Your task to perform on an android device: Go to Yahoo.com Image 0: 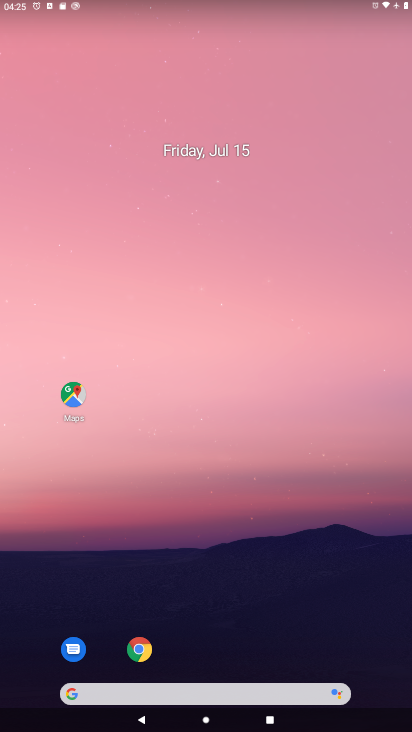
Step 0: click (138, 648)
Your task to perform on an android device: Go to Yahoo.com Image 1: 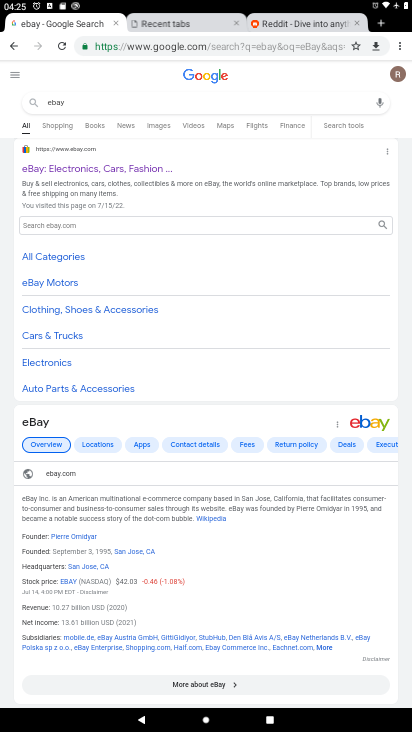
Step 1: click (286, 44)
Your task to perform on an android device: Go to Yahoo.com Image 2: 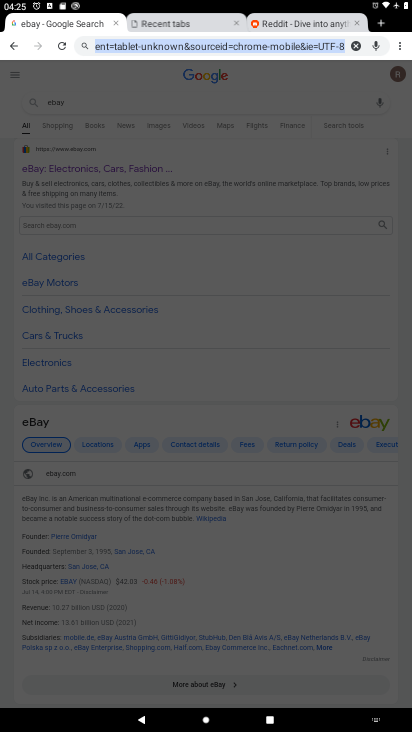
Step 2: click (353, 45)
Your task to perform on an android device: Go to Yahoo.com Image 3: 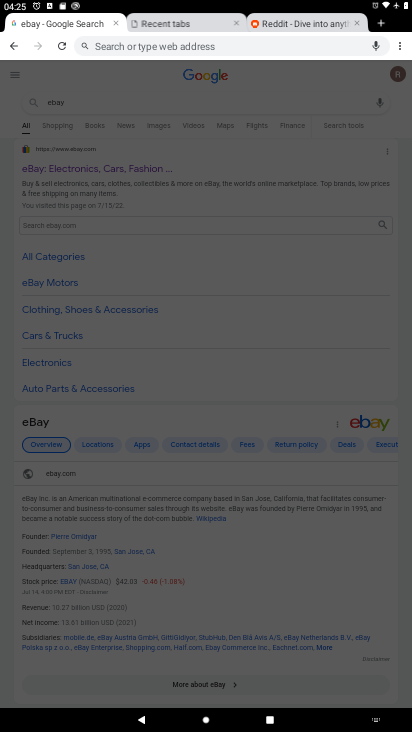
Step 3: type "yahoo.com"
Your task to perform on an android device: Go to Yahoo.com Image 4: 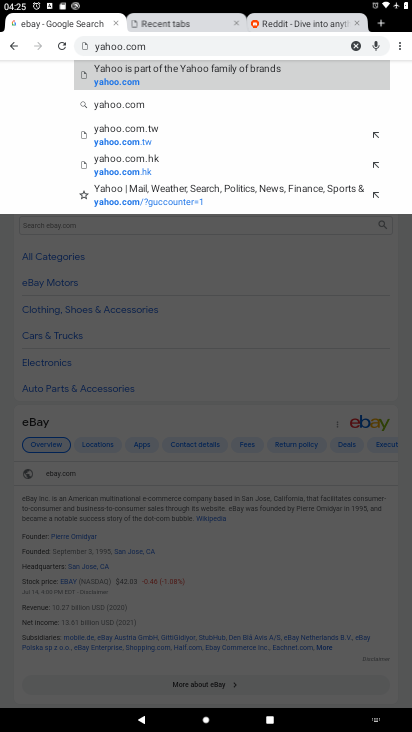
Step 4: click (112, 79)
Your task to perform on an android device: Go to Yahoo.com Image 5: 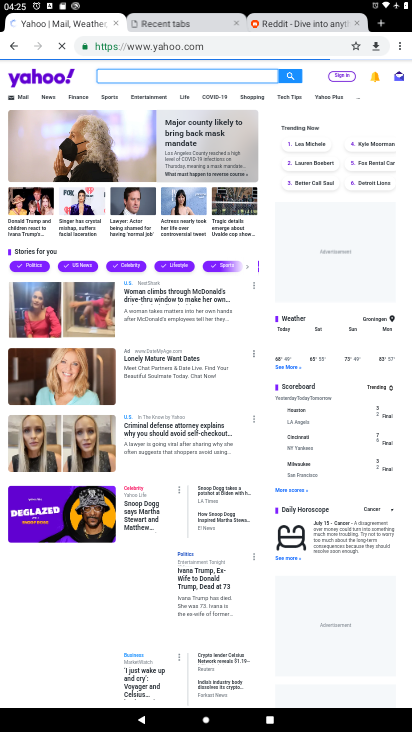
Step 5: task complete